Your task to perform on an android device: Go to settings Image 0: 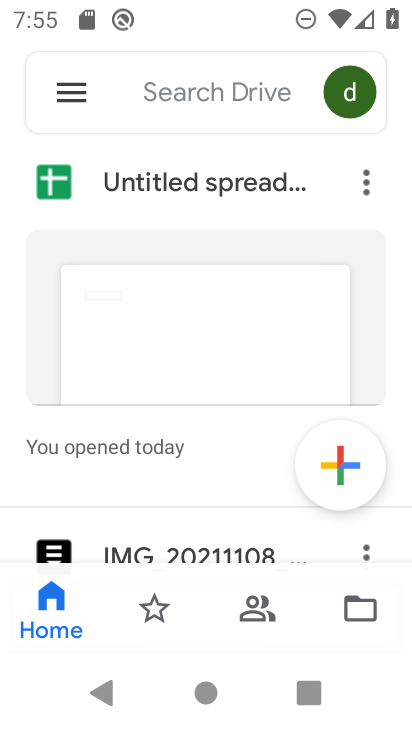
Step 0: press home button
Your task to perform on an android device: Go to settings Image 1: 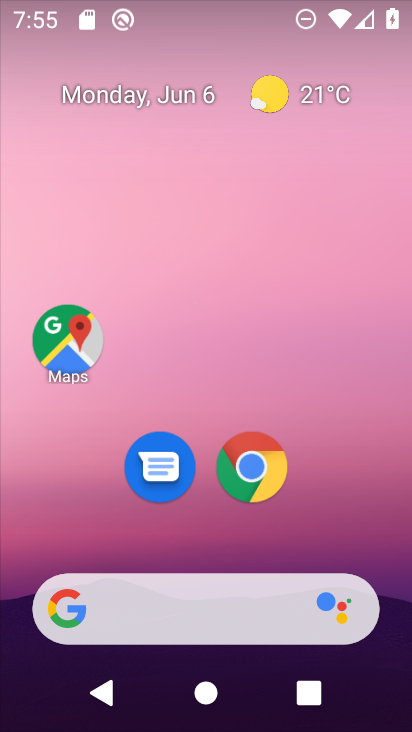
Step 1: drag from (375, 532) to (340, 163)
Your task to perform on an android device: Go to settings Image 2: 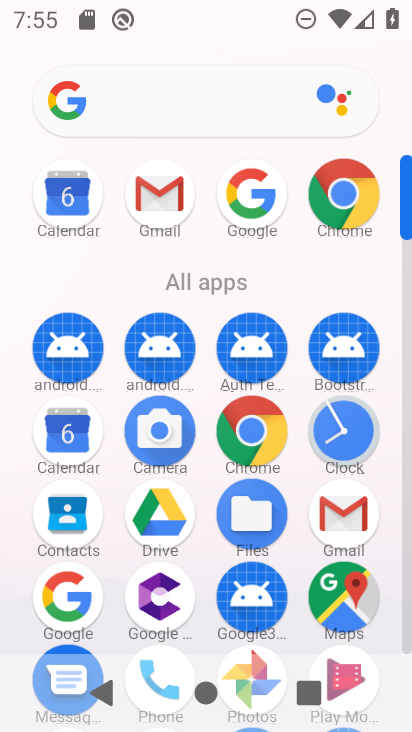
Step 2: drag from (379, 568) to (403, 276)
Your task to perform on an android device: Go to settings Image 3: 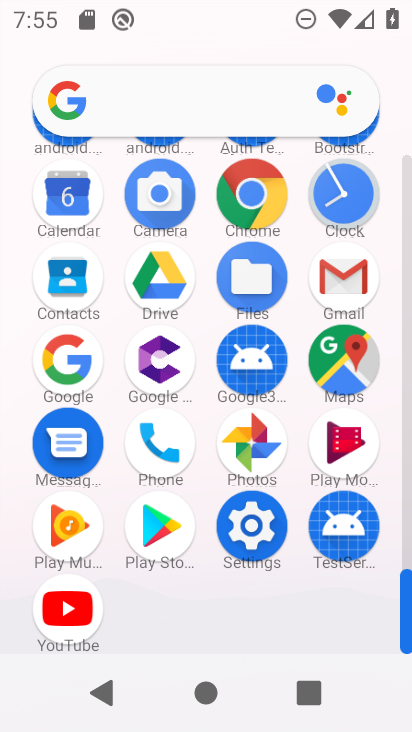
Step 3: click (257, 524)
Your task to perform on an android device: Go to settings Image 4: 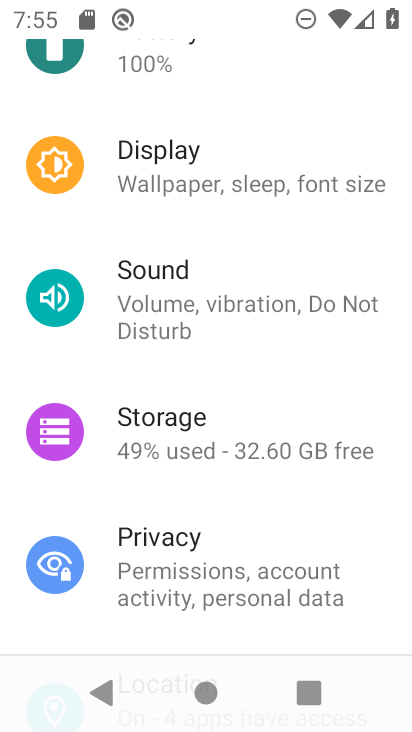
Step 4: task complete